Your task to perform on an android device: Open the calendar app, open the side menu, and click the "Day" option Image 0: 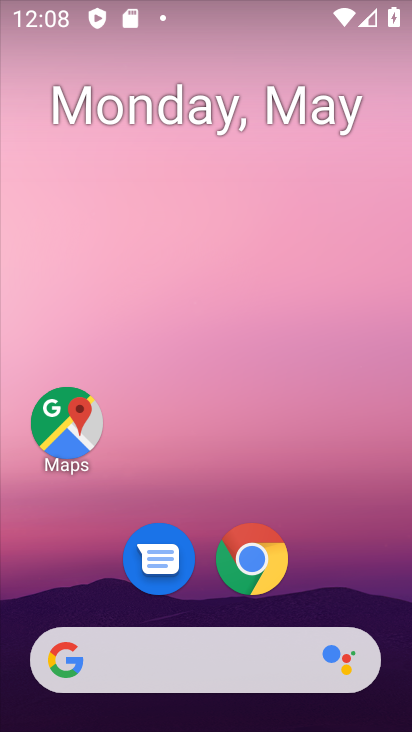
Step 0: drag from (189, 714) to (212, 77)
Your task to perform on an android device: Open the calendar app, open the side menu, and click the "Day" option Image 1: 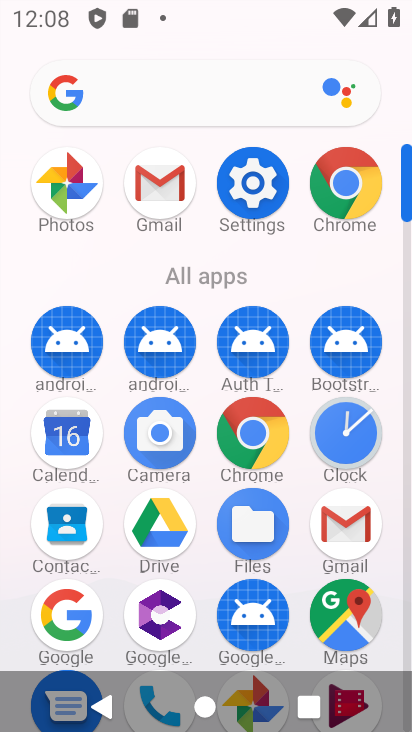
Step 1: click (86, 447)
Your task to perform on an android device: Open the calendar app, open the side menu, and click the "Day" option Image 2: 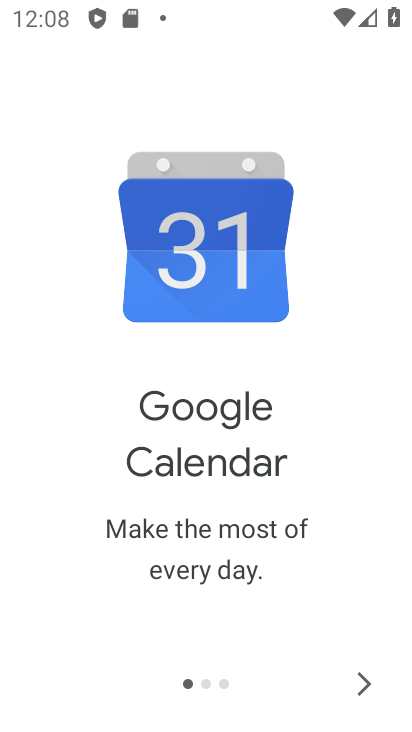
Step 2: click (367, 686)
Your task to perform on an android device: Open the calendar app, open the side menu, and click the "Day" option Image 3: 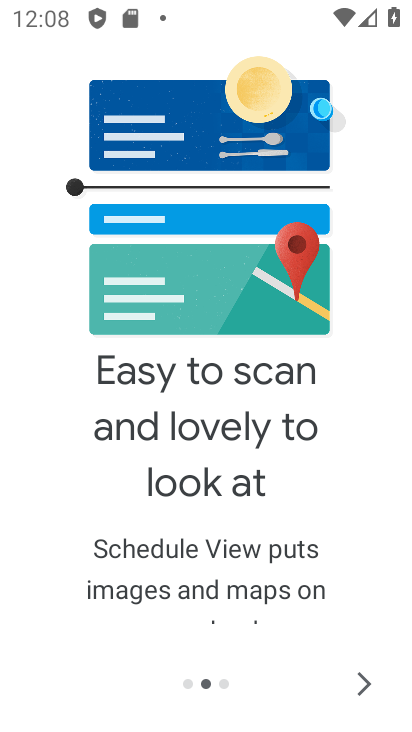
Step 3: click (367, 686)
Your task to perform on an android device: Open the calendar app, open the side menu, and click the "Day" option Image 4: 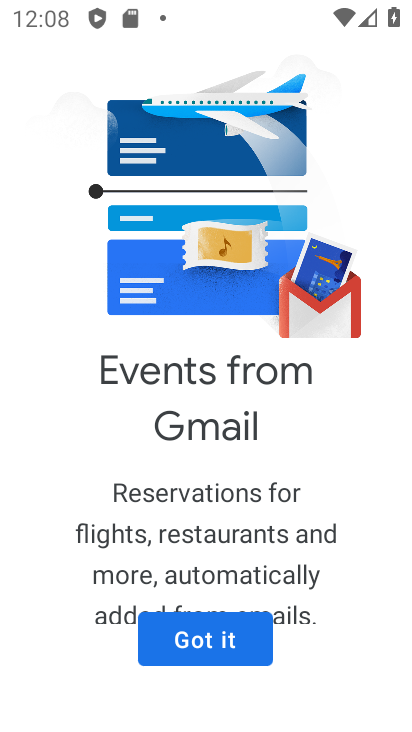
Step 4: click (204, 654)
Your task to perform on an android device: Open the calendar app, open the side menu, and click the "Day" option Image 5: 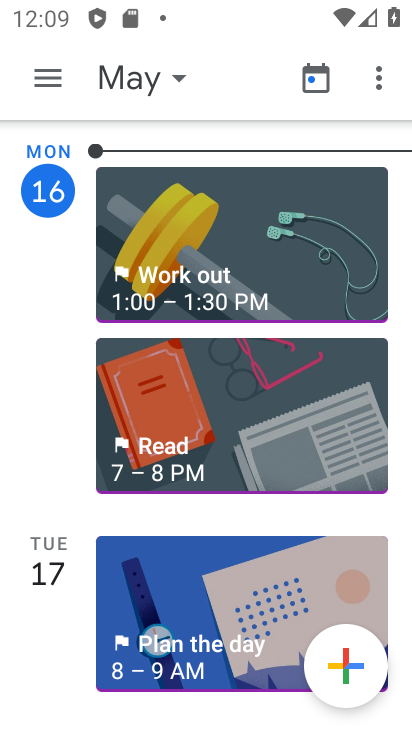
Step 5: click (54, 76)
Your task to perform on an android device: Open the calendar app, open the side menu, and click the "Day" option Image 6: 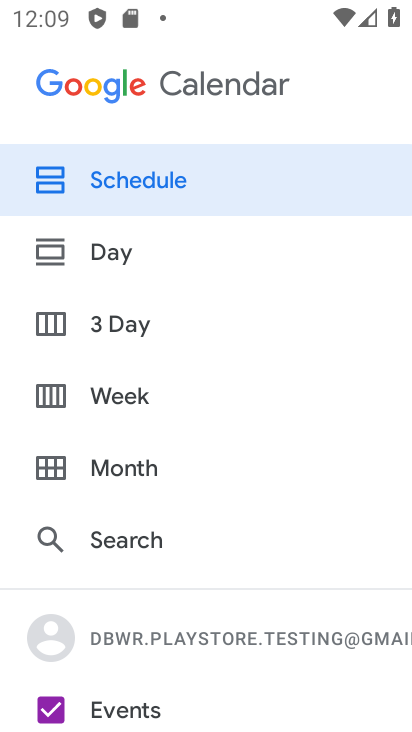
Step 6: click (104, 247)
Your task to perform on an android device: Open the calendar app, open the side menu, and click the "Day" option Image 7: 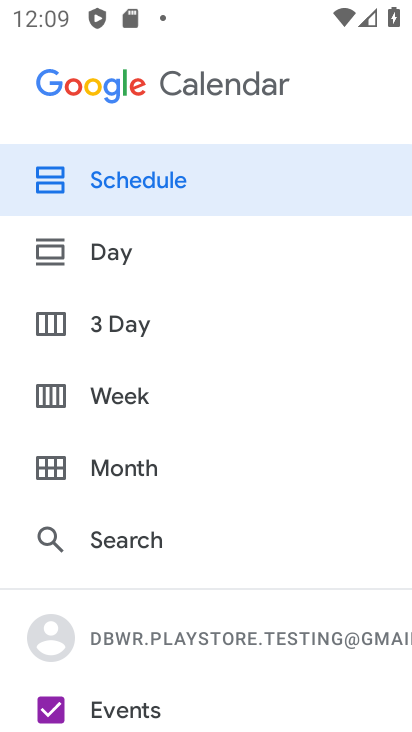
Step 7: click (111, 257)
Your task to perform on an android device: Open the calendar app, open the side menu, and click the "Day" option Image 8: 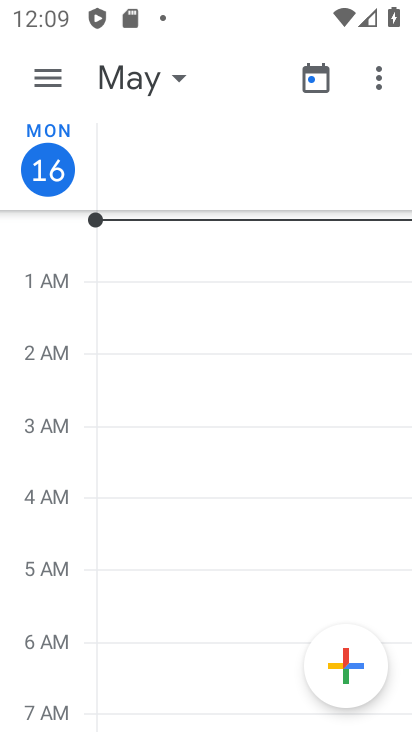
Step 8: task complete